Your task to perform on an android device: What's the weather going to be this weekend? Image 0: 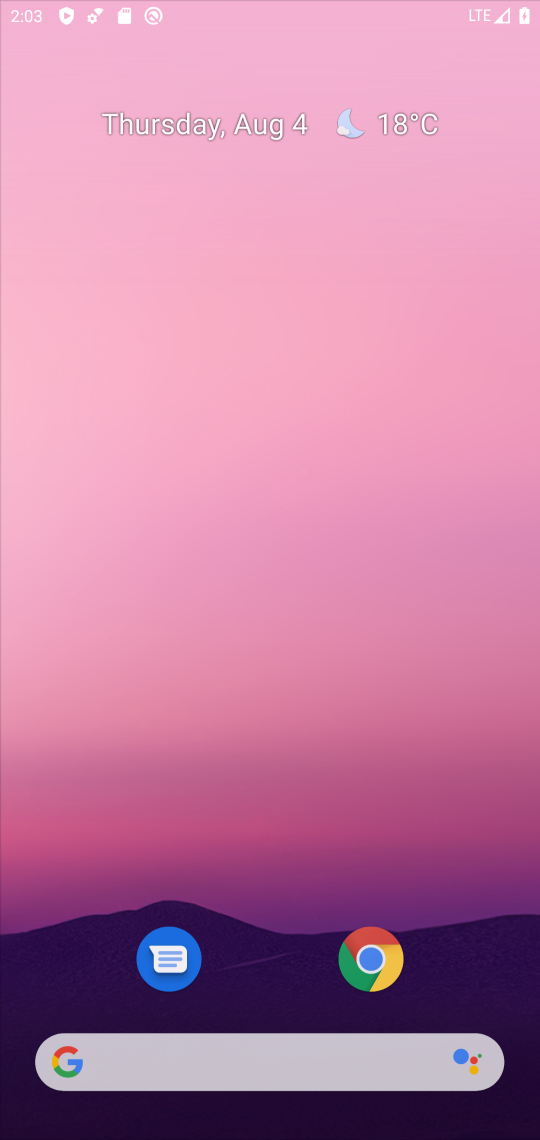
Step 0: press home button
Your task to perform on an android device: What's the weather going to be this weekend? Image 1: 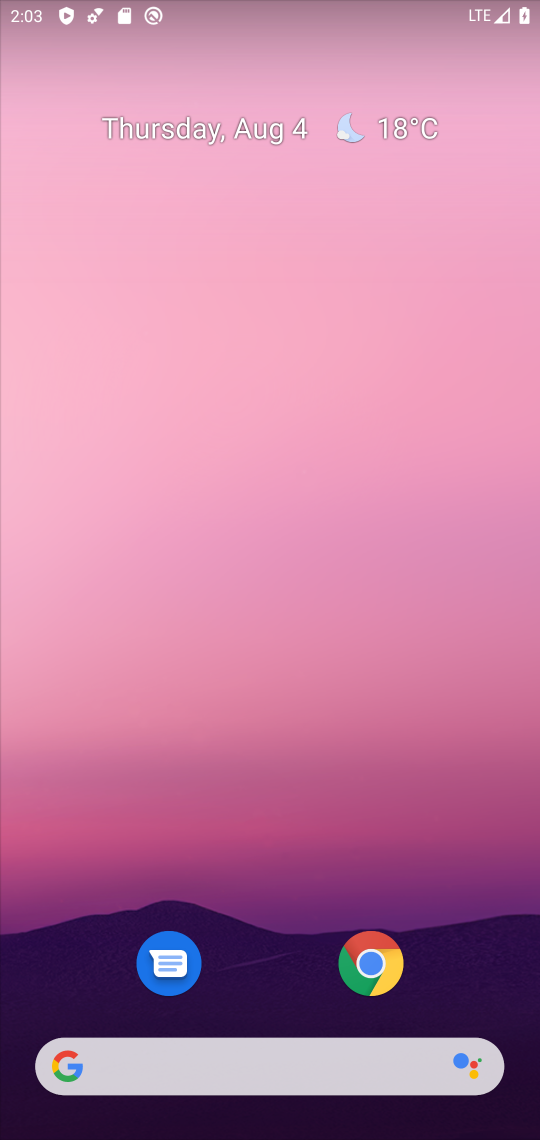
Step 1: drag from (266, 1079) to (266, 486)
Your task to perform on an android device: What's the weather going to be this weekend? Image 2: 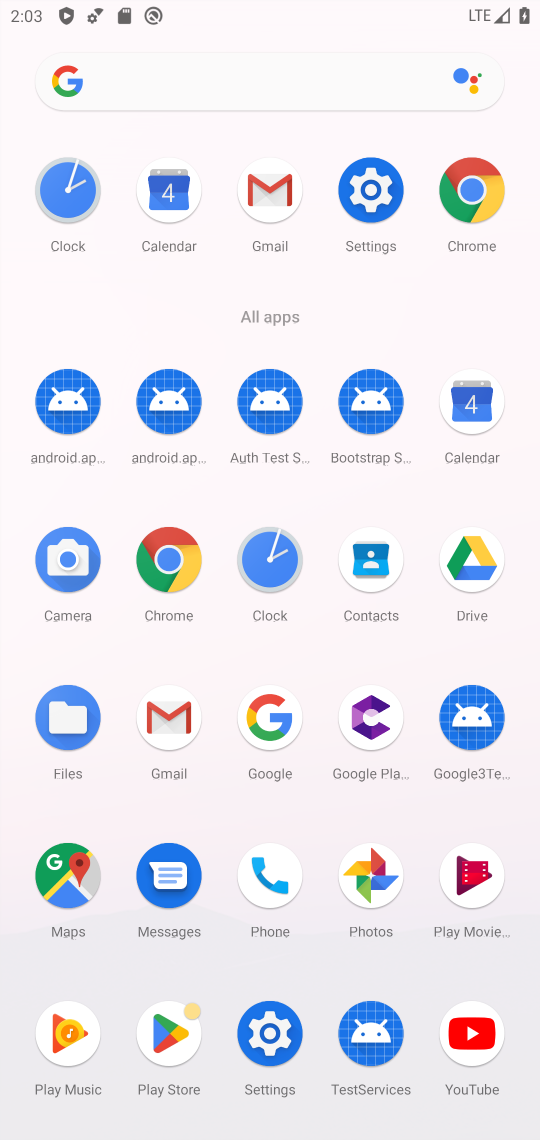
Step 2: click (465, 196)
Your task to perform on an android device: What's the weather going to be this weekend? Image 3: 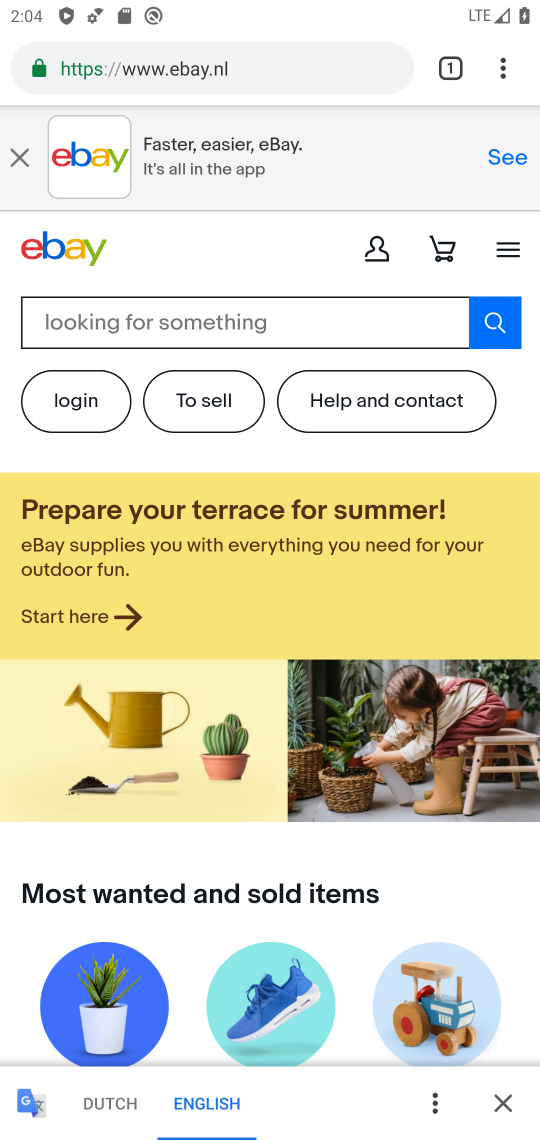
Step 3: click (190, 72)
Your task to perform on an android device: What's the weather going to be this weekend? Image 4: 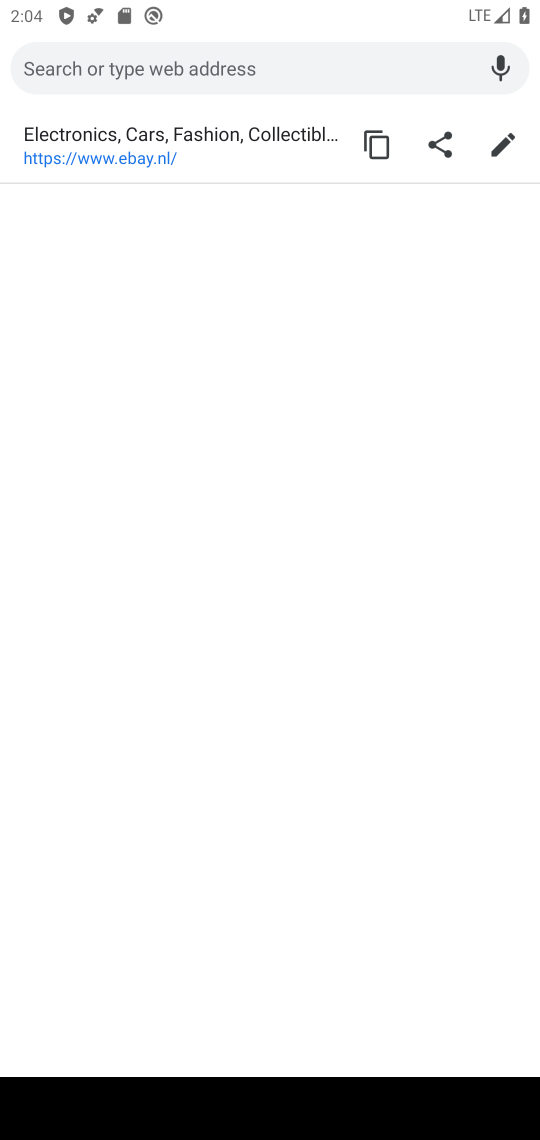
Step 4: type "weather weekend"
Your task to perform on an android device: What's the weather going to be this weekend? Image 5: 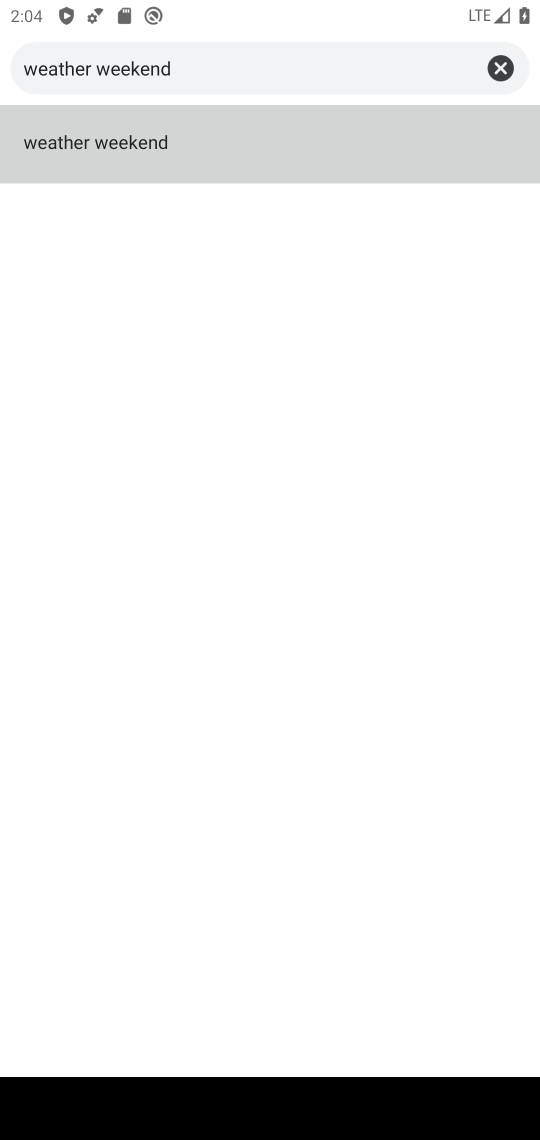
Step 5: click (144, 143)
Your task to perform on an android device: What's the weather going to be this weekend? Image 6: 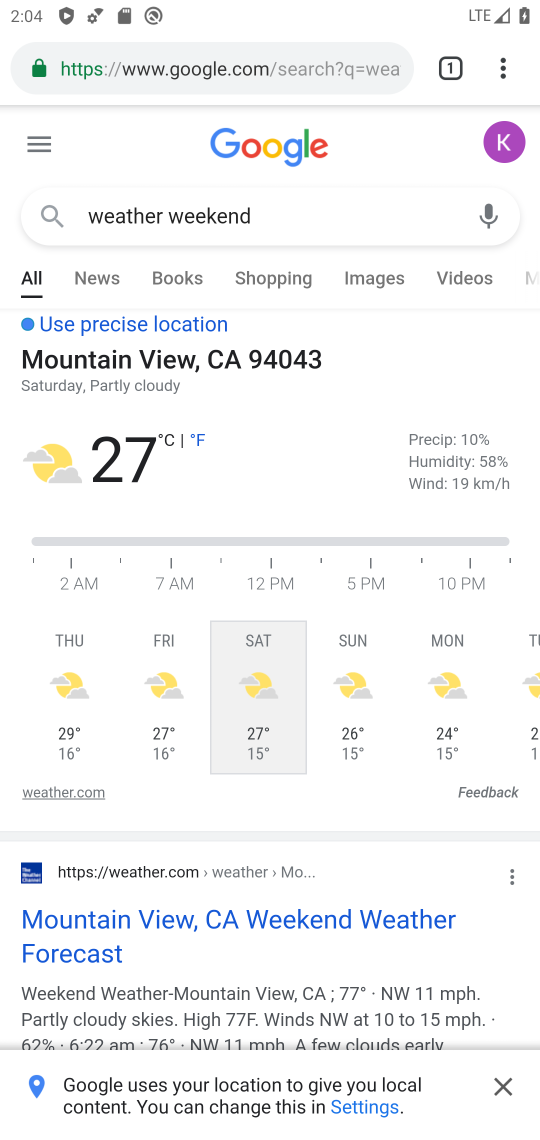
Step 6: task complete